Your task to perform on an android device: Open Maps and search for coffee Image 0: 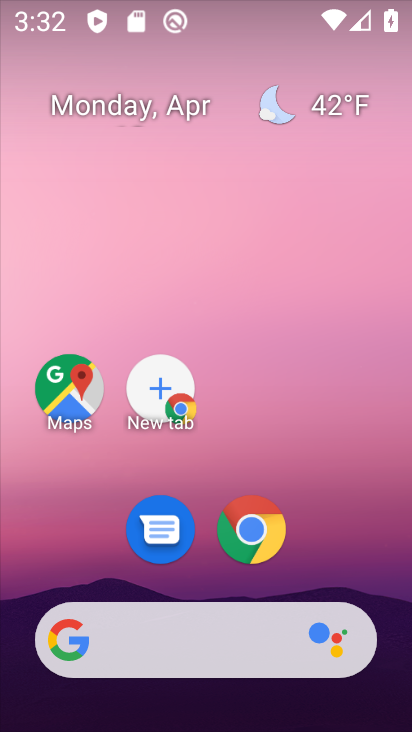
Step 0: click (77, 389)
Your task to perform on an android device: Open Maps and search for coffee Image 1: 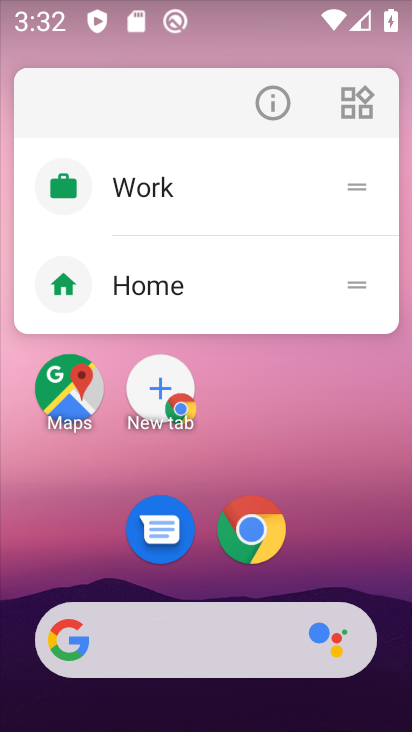
Step 1: click (77, 389)
Your task to perform on an android device: Open Maps and search for coffee Image 2: 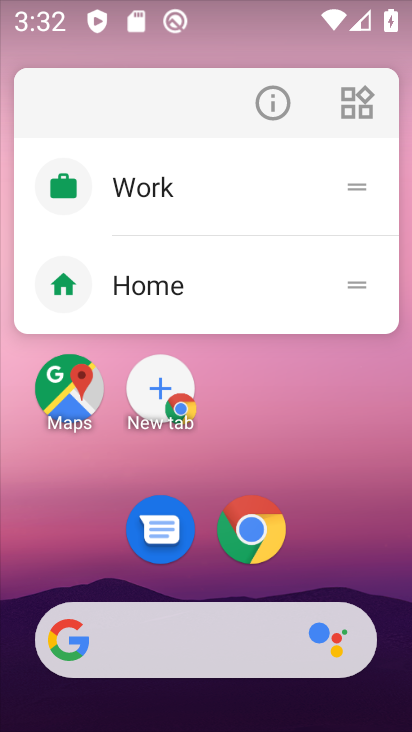
Step 2: click (74, 408)
Your task to perform on an android device: Open Maps and search for coffee Image 3: 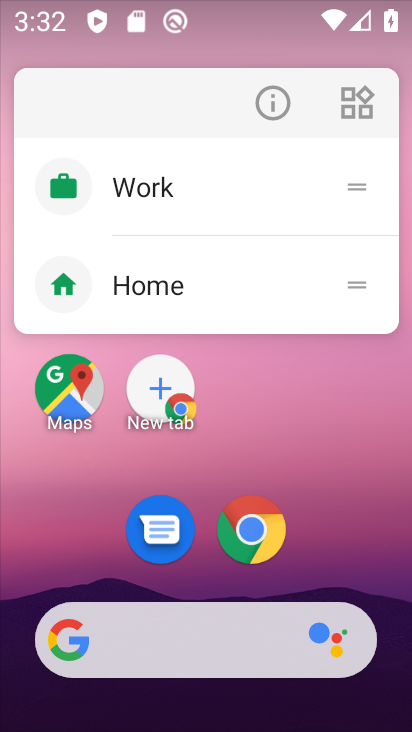
Step 3: click (65, 371)
Your task to perform on an android device: Open Maps and search for coffee Image 4: 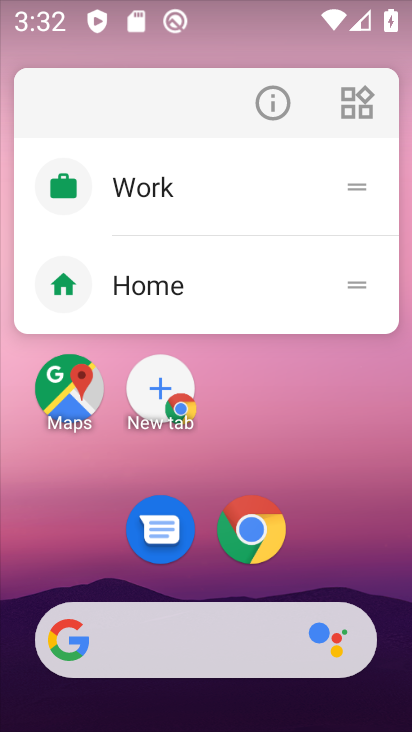
Step 4: click (60, 372)
Your task to perform on an android device: Open Maps and search for coffee Image 5: 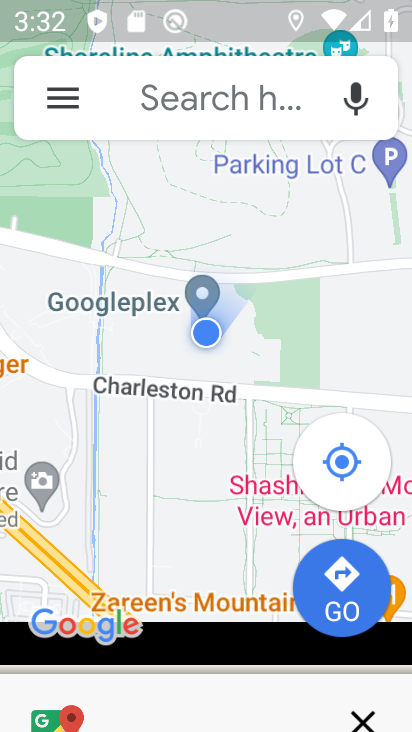
Step 5: click (194, 120)
Your task to perform on an android device: Open Maps and search for coffee Image 6: 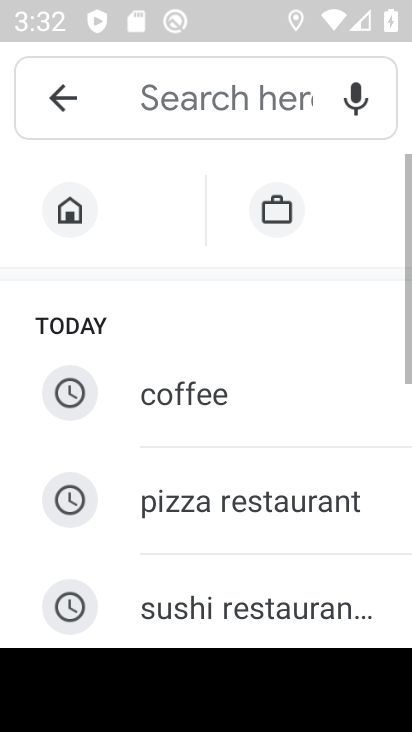
Step 6: click (204, 383)
Your task to perform on an android device: Open Maps and search for coffee Image 7: 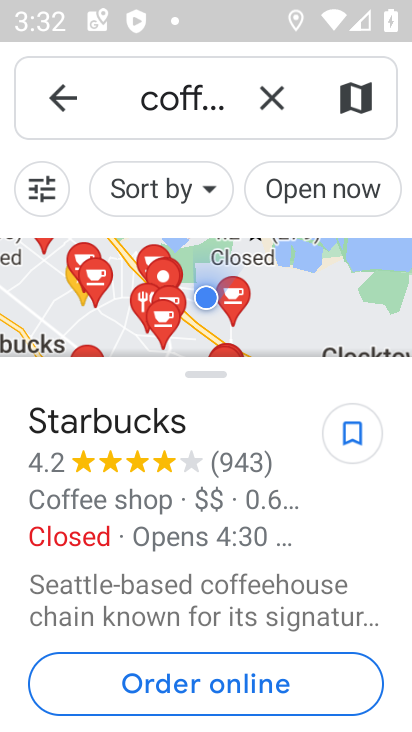
Step 7: task complete